Your task to perform on an android device: Go to settings Image 0: 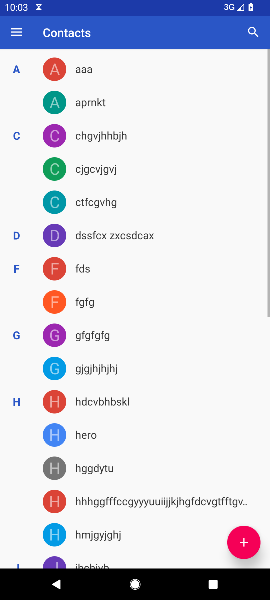
Step 0: press home button
Your task to perform on an android device: Go to settings Image 1: 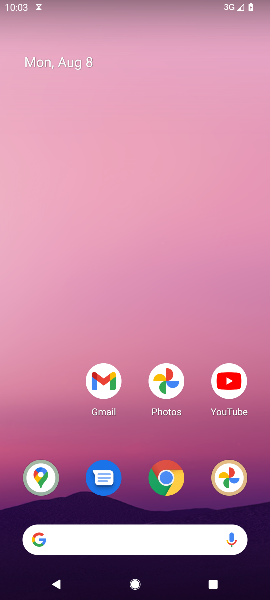
Step 1: drag from (87, 538) to (184, 189)
Your task to perform on an android device: Go to settings Image 2: 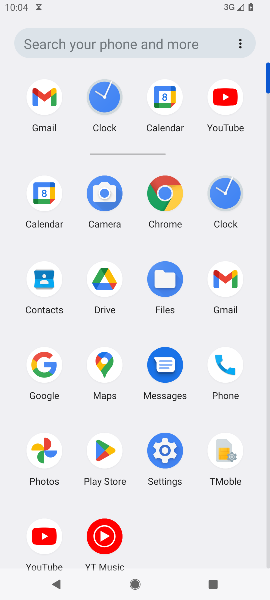
Step 2: click (154, 454)
Your task to perform on an android device: Go to settings Image 3: 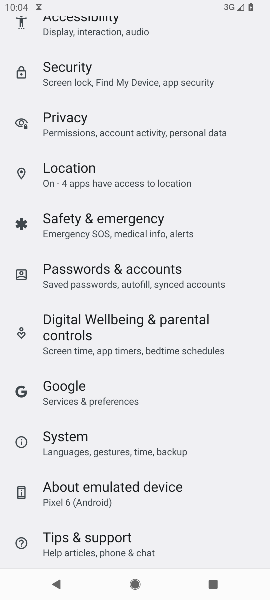
Step 3: task complete